Your task to perform on an android device: Open Chrome and go to settings Image 0: 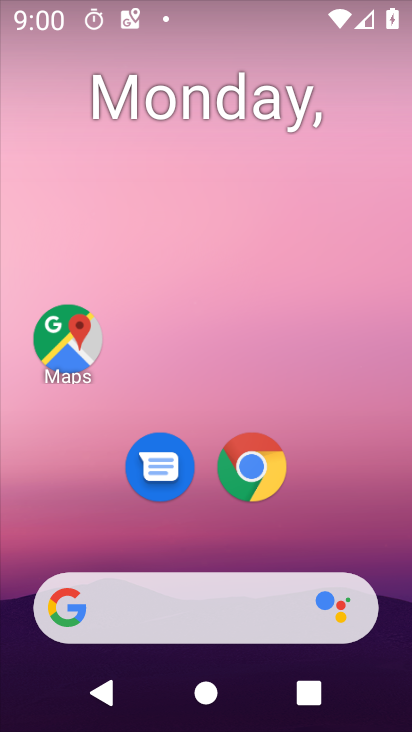
Step 0: click (238, 482)
Your task to perform on an android device: Open Chrome and go to settings Image 1: 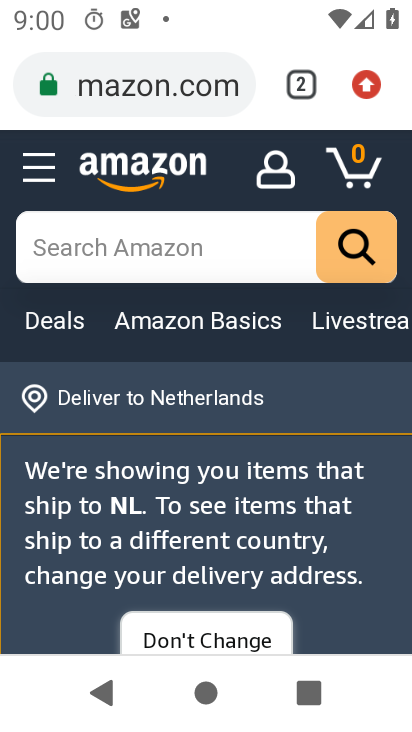
Step 1: click (365, 89)
Your task to perform on an android device: Open Chrome and go to settings Image 2: 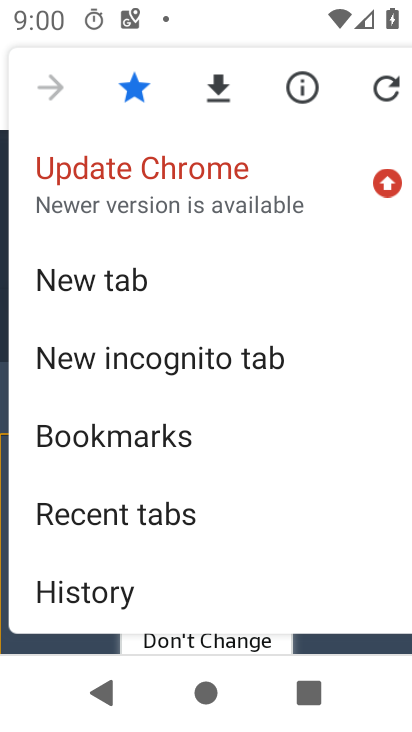
Step 2: drag from (194, 517) to (273, 118)
Your task to perform on an android device: Open Chrome and go to settings Image 3: 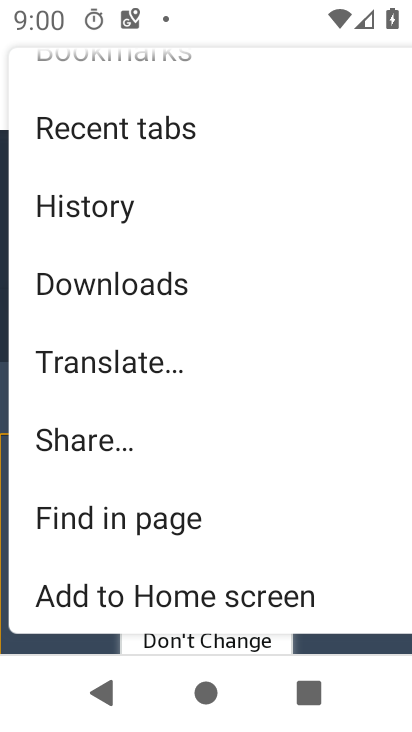
Step 3: drag from (173, 553) to (246, 94)
Your task to perform on an android device: Open Chrome and go to settings Image 4: 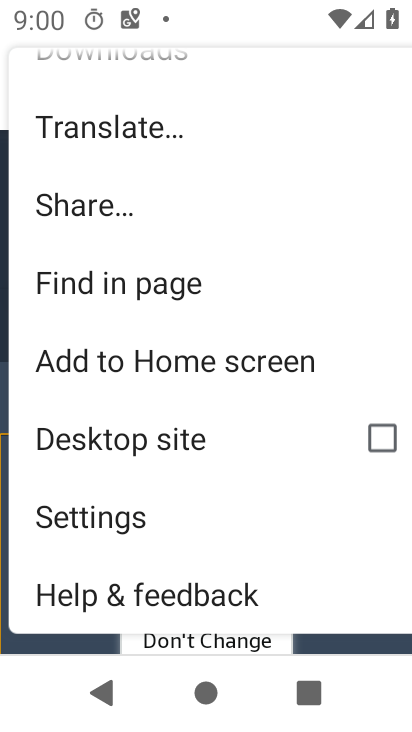
Step 4: click (127, 528)
Your task to perform on an android device: Open Chrome and go to settings Image 5: 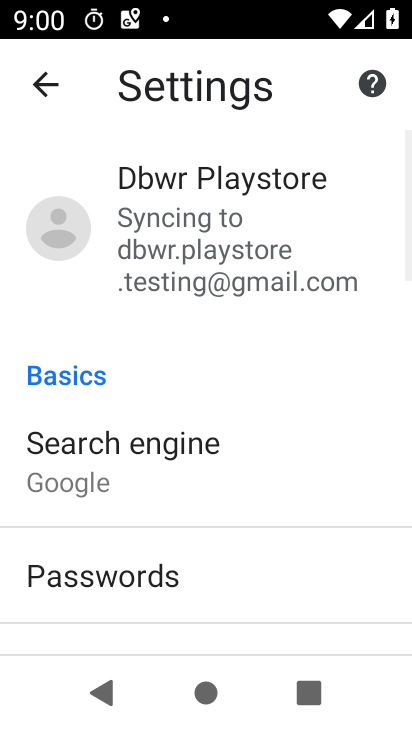
Step 5: task complete